Your task to perform on an android device: Open Chrome and go to settings Image 0: 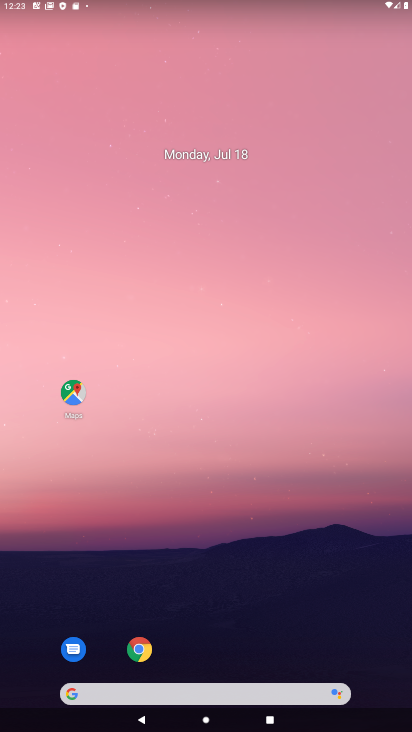
Step 0: click (138, 650)
Your task to perform on an android device: Open Chrome and go to settings Image 1: 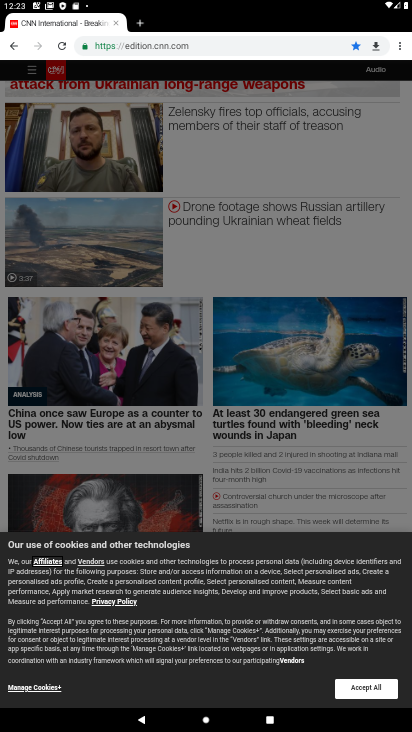
Step 1: click (397, 51)
Your task to perform on an android device: Open Chrome and go to settings Image 2: 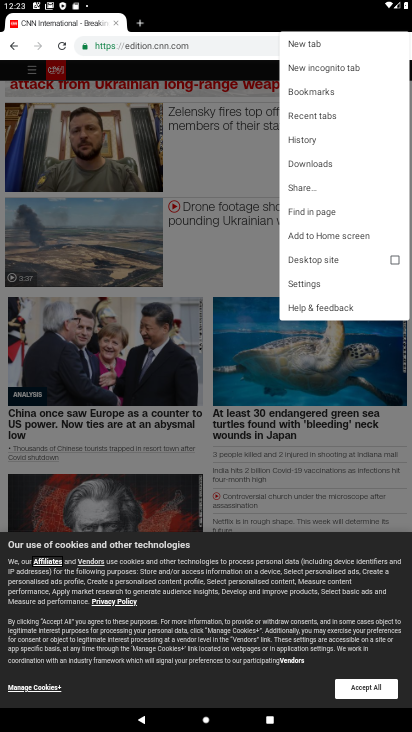
Step 2: click (308, 284)
Your task to perform on an android device: Open Chrome and go to settings Image 3: 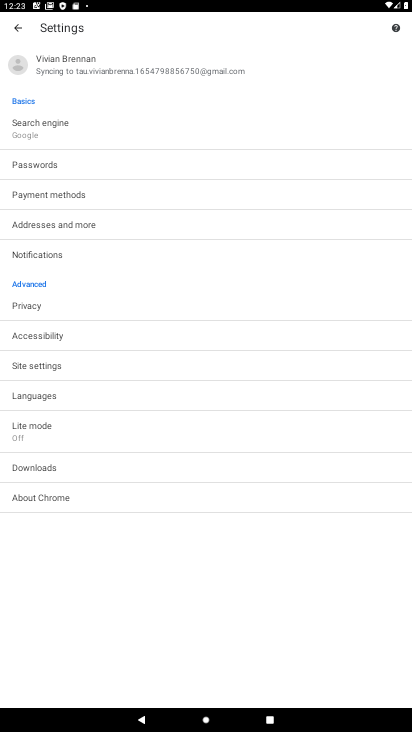
Step 3: task complete